Your task to perform on an android device: toggle translation in the chrome app Image 0: 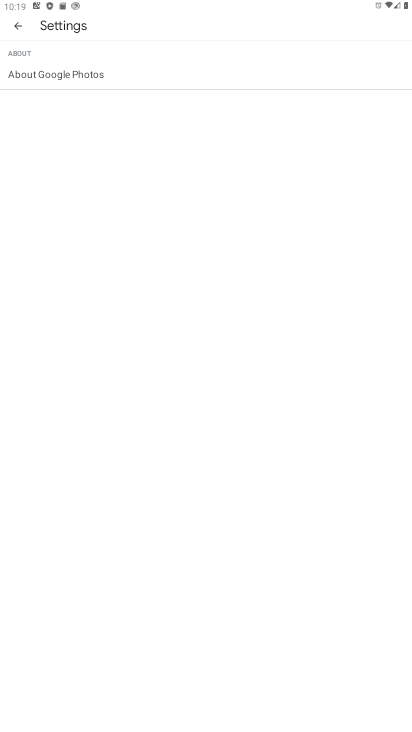
Step 0: press home button
Your task to perform on an android device: toggle translation in the chrome app Image 1: 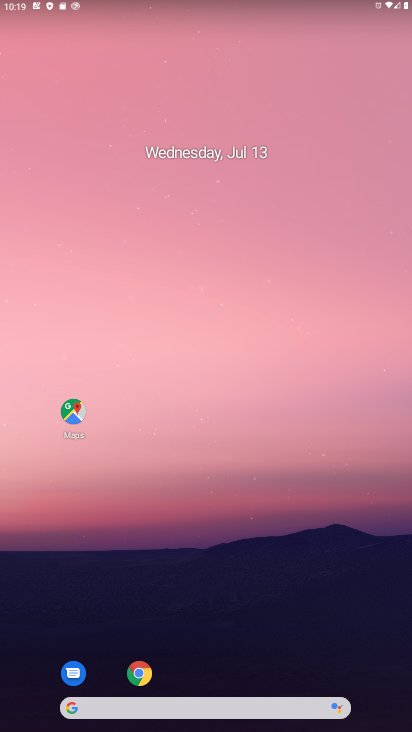
Step 1: click (146, 668)
Your task to perform on an android device: toggle translation in the chrome app Image 2: 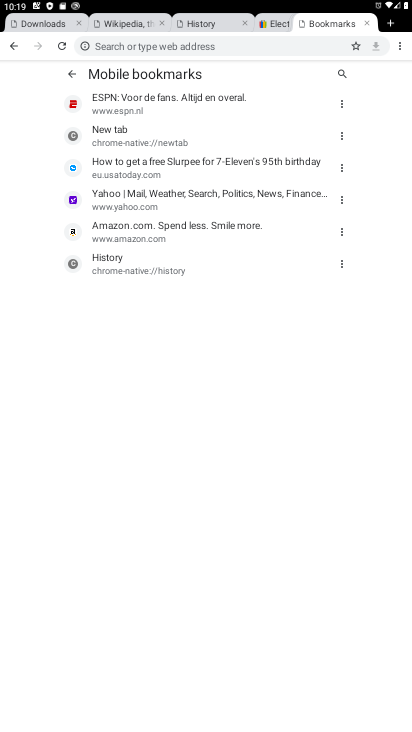
Step 2: click (403, 49)
Your task to perform on an android device: toggle translation in the chrome app Image 3: 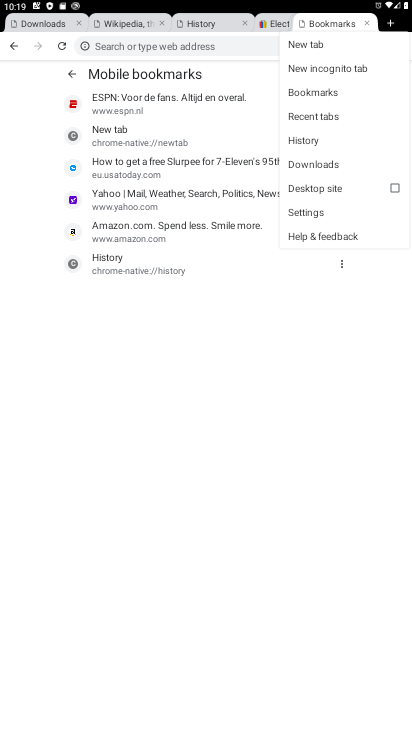
Step 3: click (313, 219)
Your task to perform on an android device: toggle translation in the chrome app Image 4: 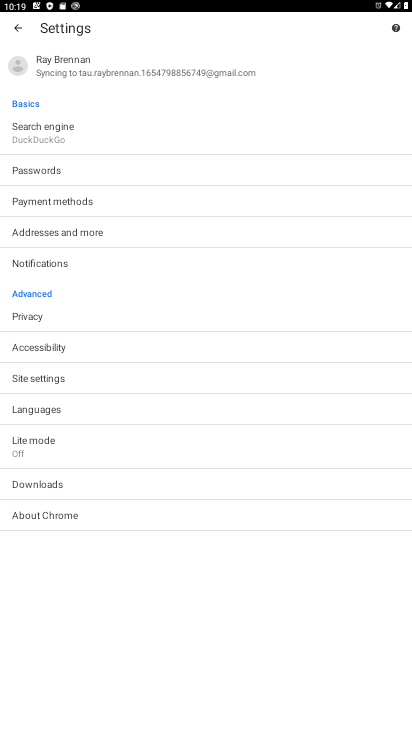
Step 4: click (102, 407)
Your task to perform on an android device: toggle translation in the chrome app Image 5: 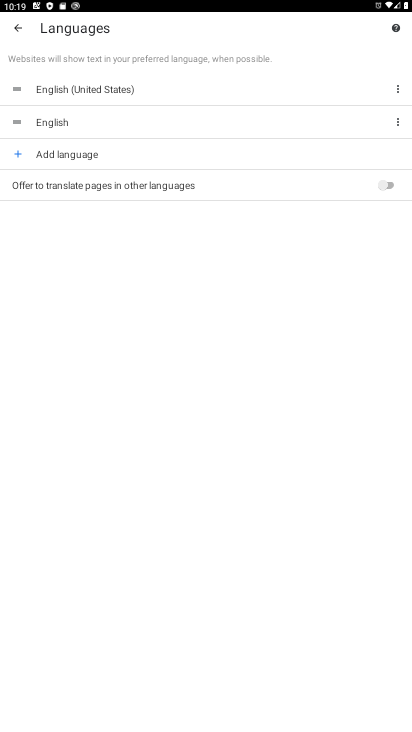
Step 5: click (390, 186)
Your task to perform on an android device: toggle translation in the chrome app Image 6: 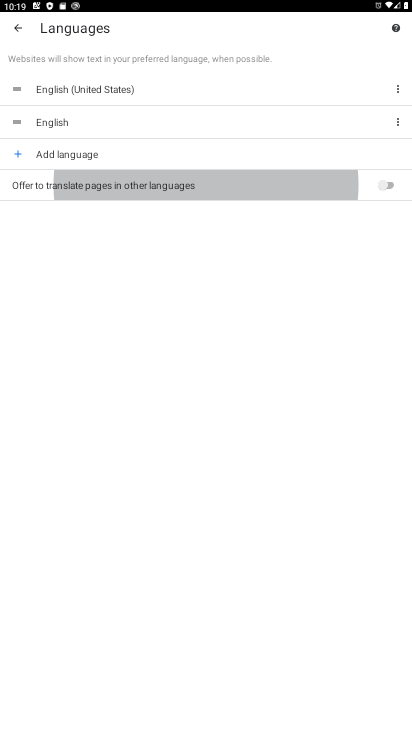
Step 6: click (390, 186)
Your task to perform on an android device: toggle translation in the chrome app Image 7: 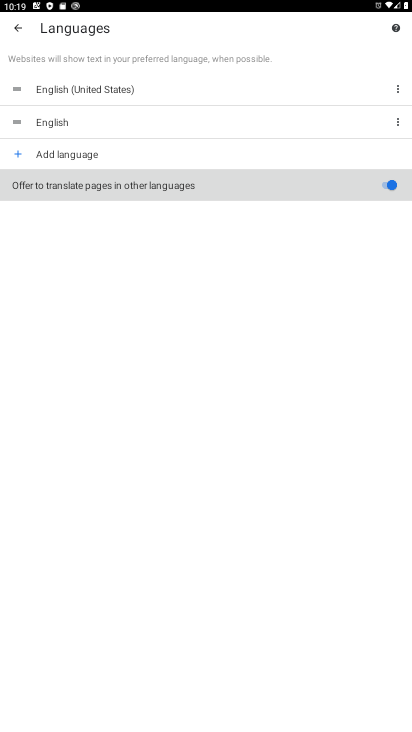
Step 7: click (390, 186)
Your task to perform on an android device: toggle translation in the chrome app Image 8: 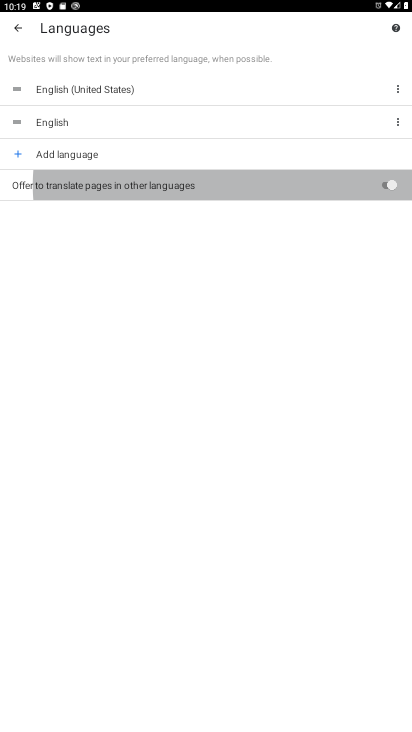
Step 8: click (390, 186)
Your task to perform on an android device: toggle translation in the chrome app Image 9: 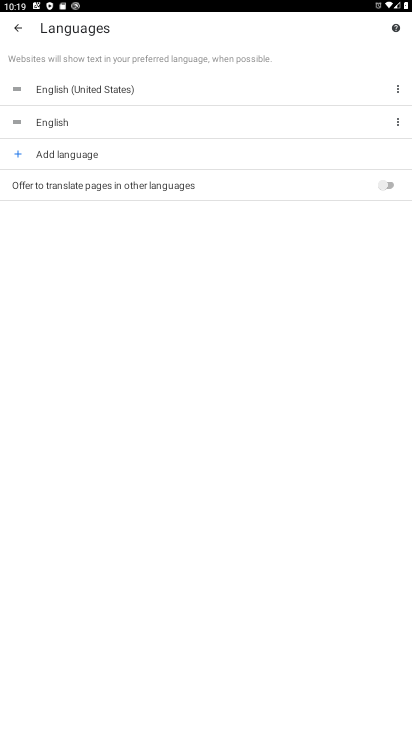
Step 9: task complete